Your task to perform on an android device: delete location history Image 0: 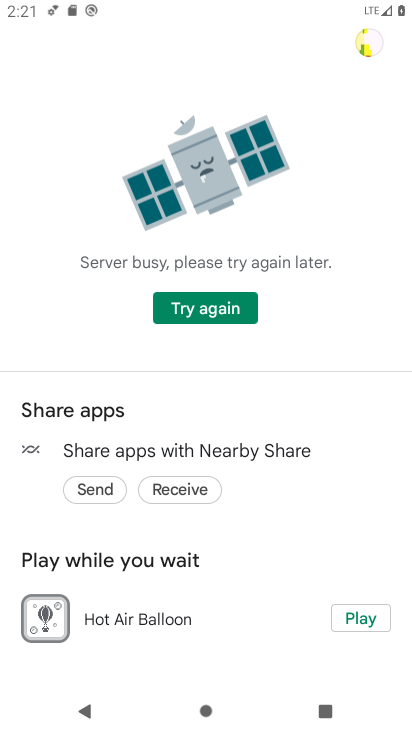
Step 0: press home button
Your task to perform on an android device: delete location history Image 1: 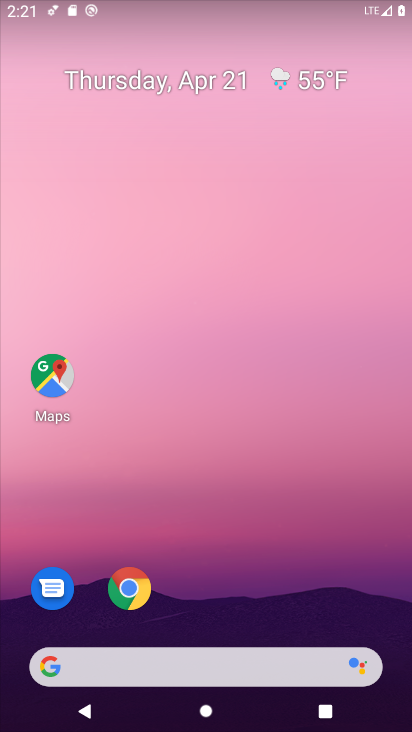
Step 1: drag from (247, 590) to (206, 64)
Your task to perform on an android device: delete location history Image 2: 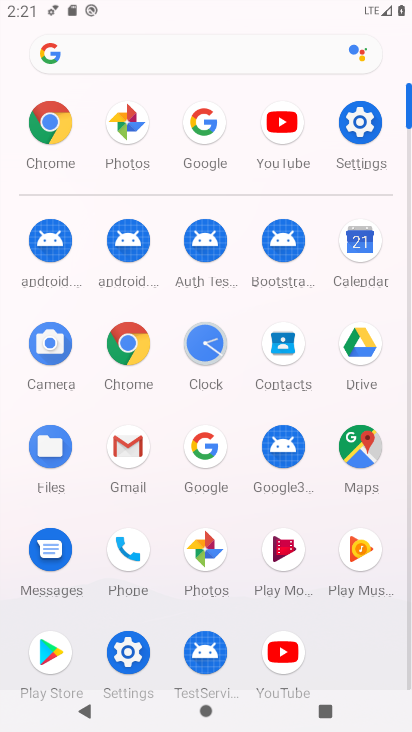
Step 2: click (350, 440)
Your task to perform on an android device: delete location history Image 3: 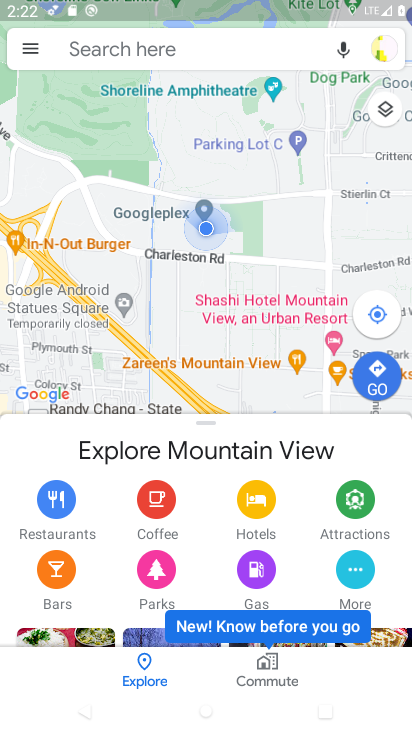
Step 3: click (30, 44)
Your task to perform on an android device: delete location history Image 4: 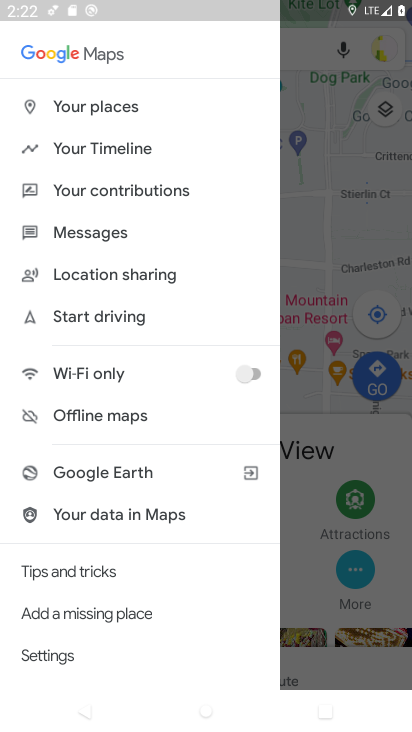
Step 4: click (103, 159)
Your task to perform on an android device: delete location history Image 5: 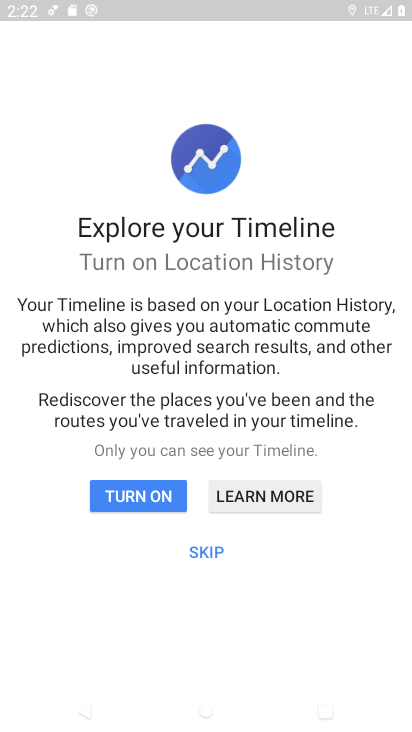
Step 5: click (213, 549)
Your task to perform on an android device: delete location history Image 6: 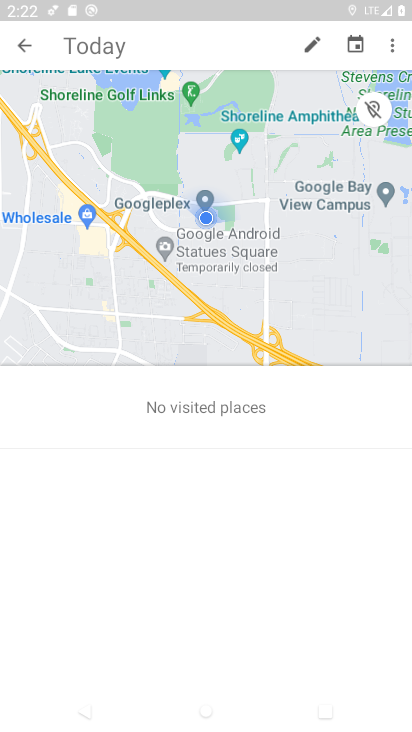
Step 6: click (383, 44)
Your task to perform on an android device: delete location history Image 7: 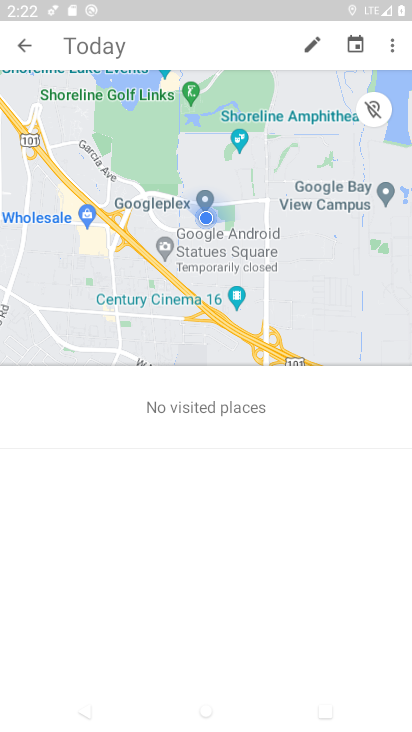
Step 7: click (387, 41)
Your task to perform on an android device: delete location history Image 8: 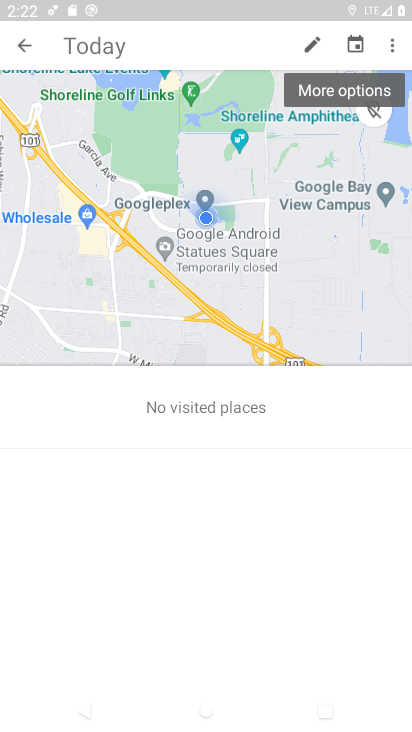
Step 8: click (387, 41)
Your task to perform on an android device: delete location history Image 9: 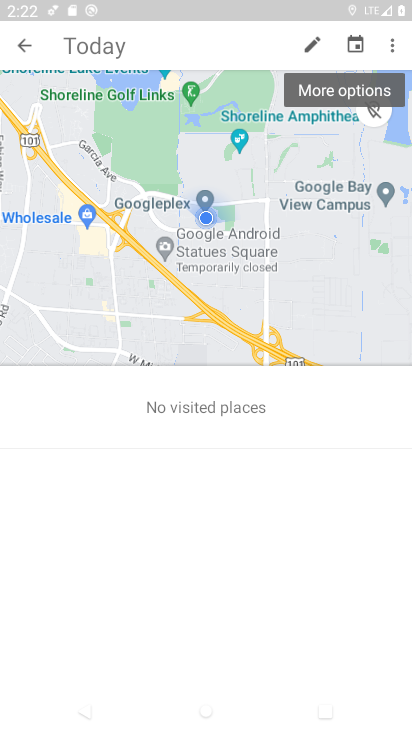
Step 9: click (389, 51)
Your task to perform on an android device: delete location history Image 10: 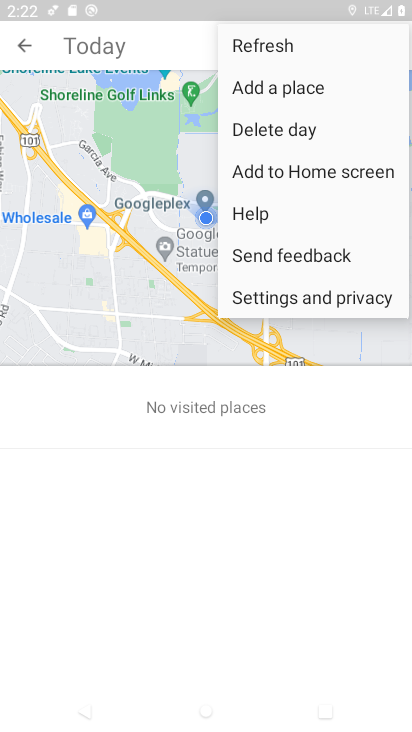
Step 10: click (277, 295)
Your task to perform on an android device: delete location history Image 11: 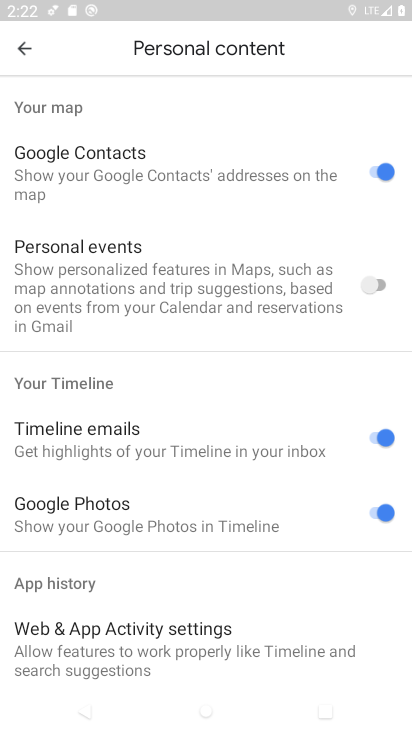
Step 11: drag from (142, 629) to (107, 405)
Your task to perform on an android device: delete location history Image 12: 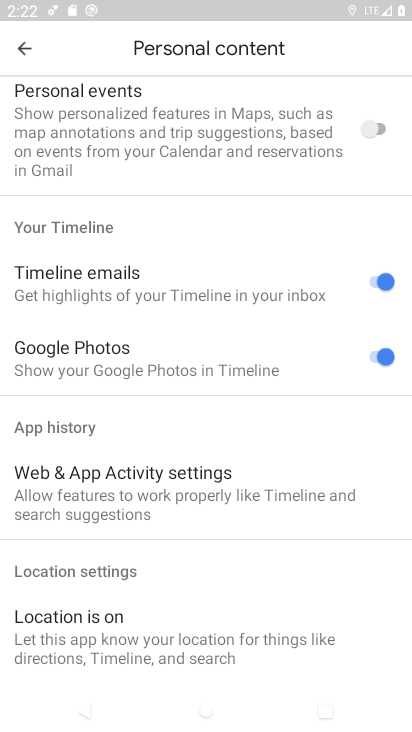
Step 12: drag from (159, 597) to (162, 436)
Your task to perform on an android device: delete location history Image 13: 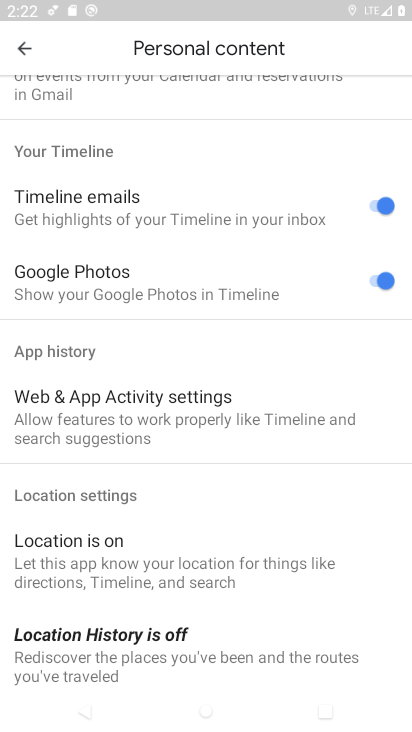
Step 13: drag from (137, 636) to (142, 467)
Your task to perform on an android device: delete location history Image 14: 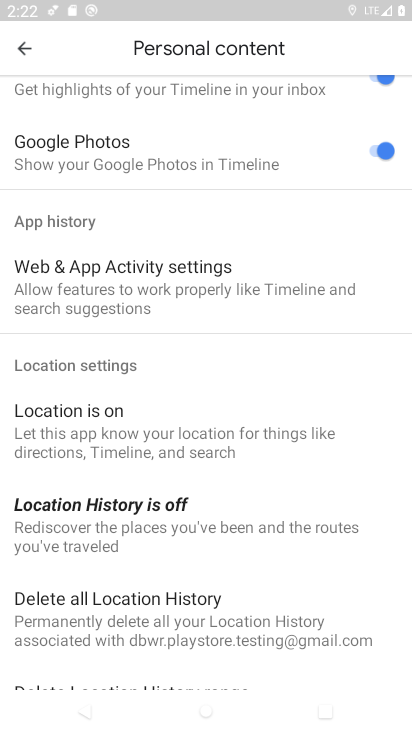
Step 14: click (117, 633)
Your task to perform on an android device: delete location history Image 15: 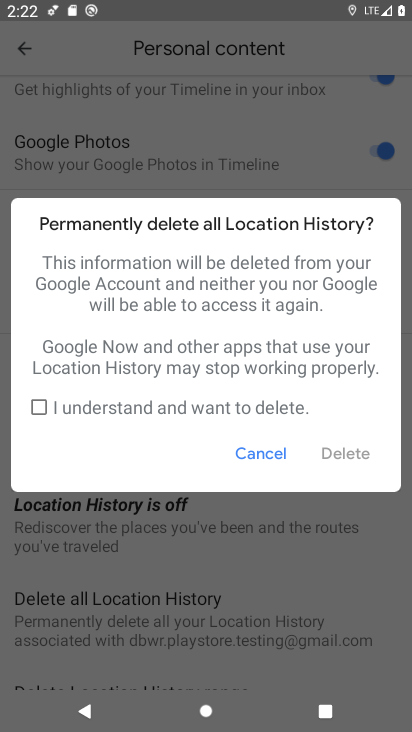
Step 15: click (56, 402)
Your task to perform on an android device: delete location history Image 16: 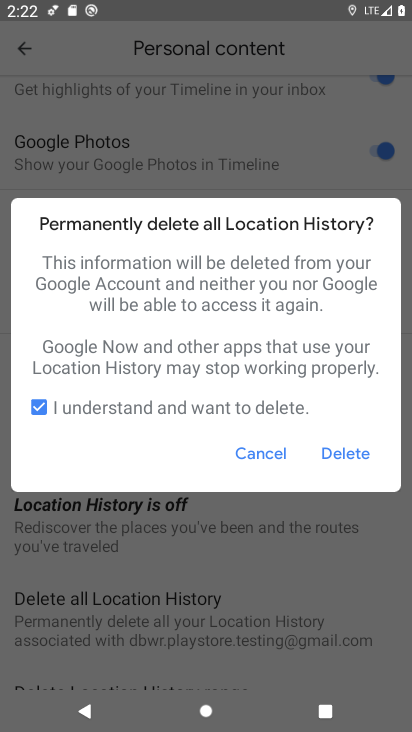
Step 16: click (356, 459)
Your task to perform on an android device: delete location history Image 17: 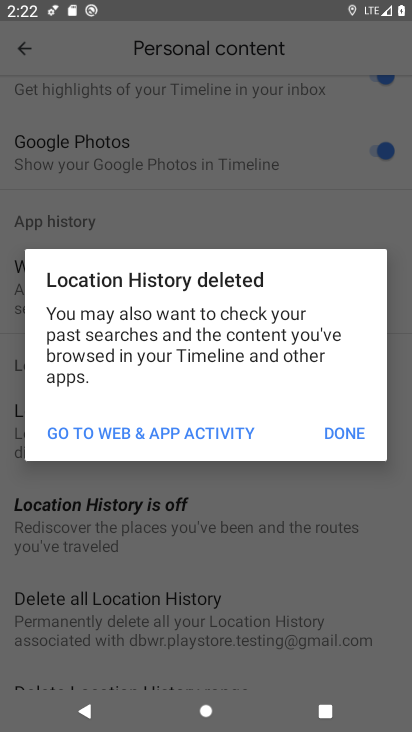
Step 17: click (352, 432)
Your task to perform on an android device: delete location history Image 18: 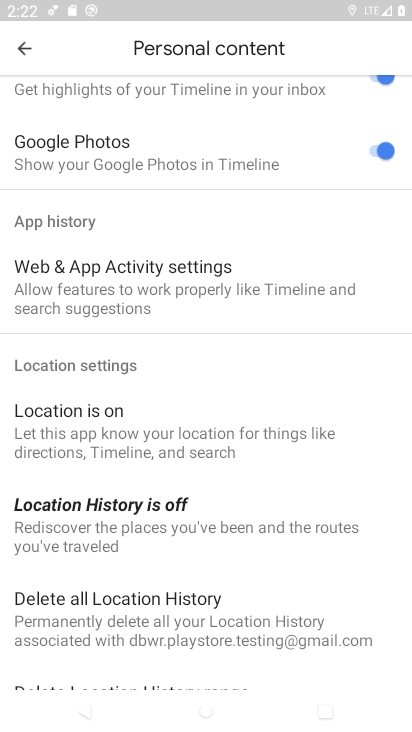
Step 18: task complete